Your task to perform on an android device: refresh tabs in the chrome app Image 0: 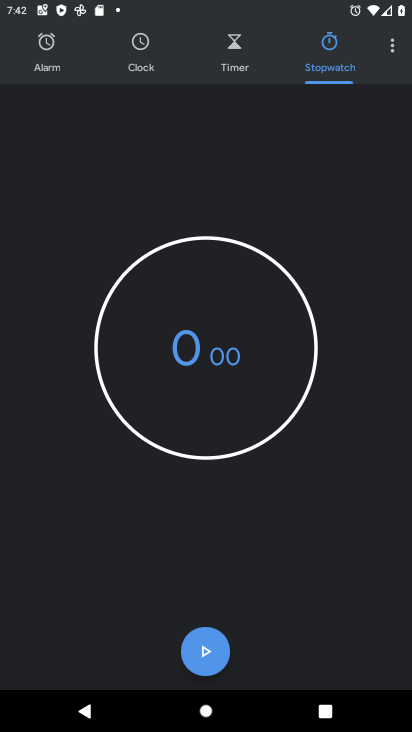
Step 0: press home button
Your task to perform on an android device: refresh tabs in the chrome app Image 1: 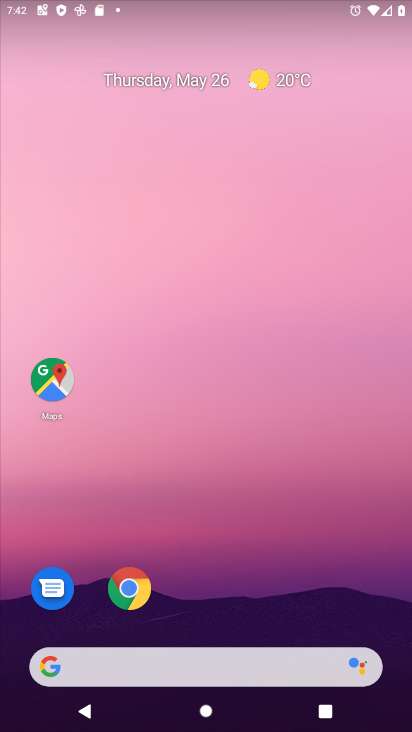
Step 1: drag from (359, 616) to (320, 99)
Your task to perform on an android device: refresh tabs in the chrome app Image 2: 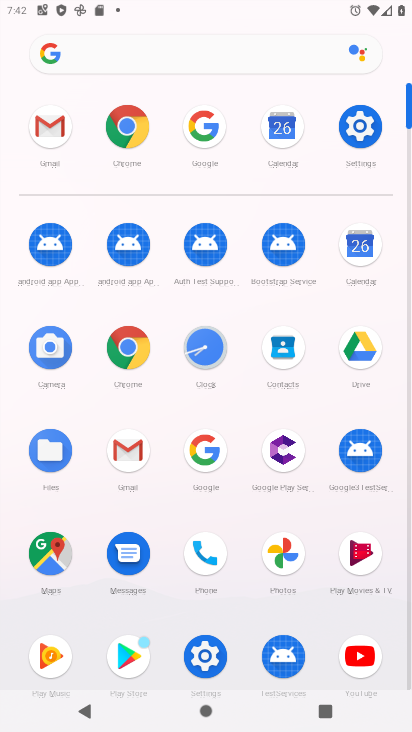
Step 2: click (123, 130)
Your task to perform on an android device: refresh tabs in the chrome app Image 3: 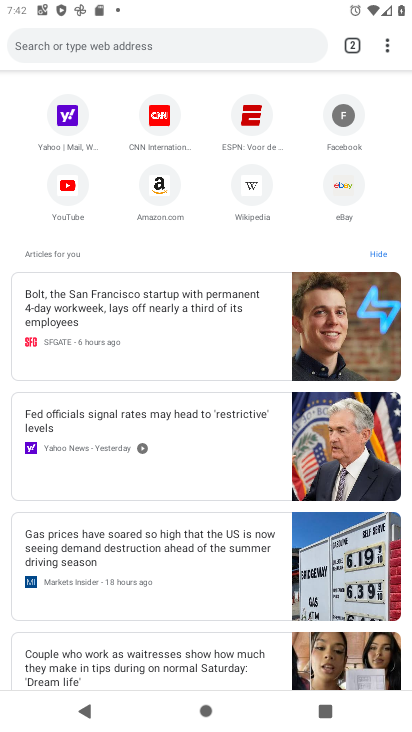
Step 3: click (386, 43)
Your task to perform on an android device: refresh tabs in the chrome app Image 4: 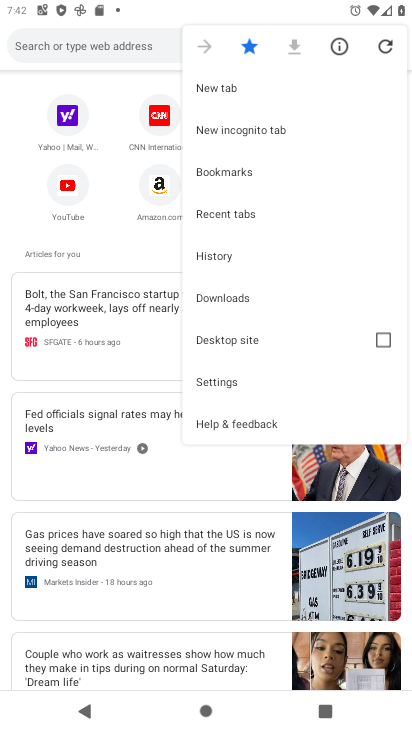
Step 4: click (386, 43)
Your task to perform on an android device: refresh tabs in the chrome app Image 5: 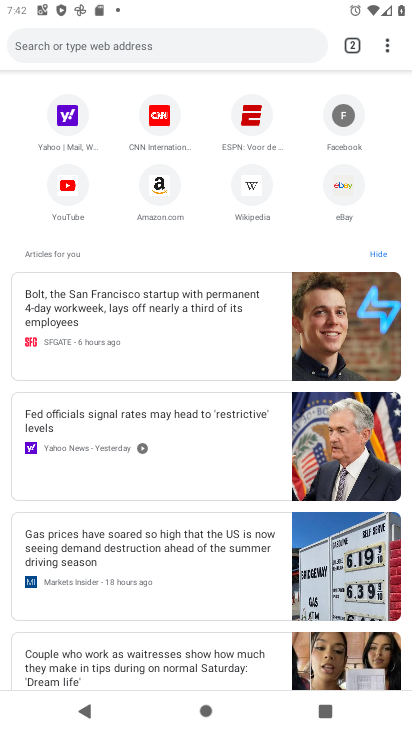
Step 5: task complete